Your task to perform on an android device: Go to internet settings Image 0: 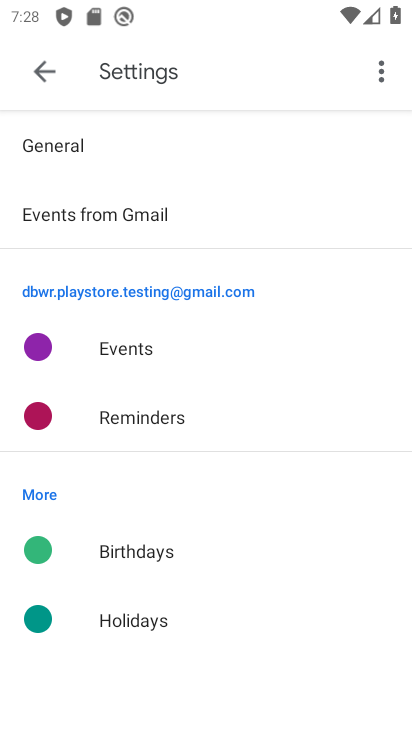
Step 0: press home button
Your task to perform on an android device: Go to internet settings Image 1: 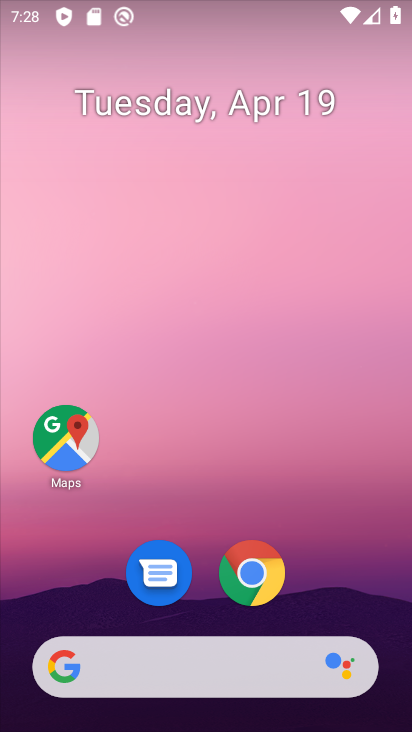
Step 1: drag from (317, 703) to (316, 216)
Your task to perform on an android device: Go to internet settings Image 2: 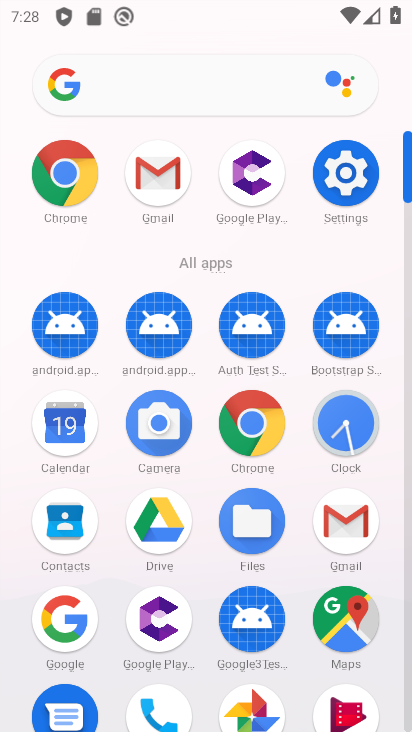
Step 2: click (350, 164)
Your task to perform on an android device: Go to internet settings Image 3: 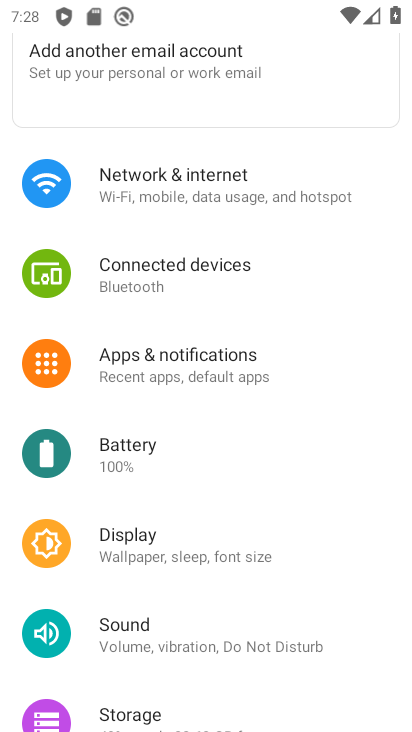
Step 3: drag from (178, 182) to (116, 346)
Your task to perform on an android device: Go to internet settings Image 4: 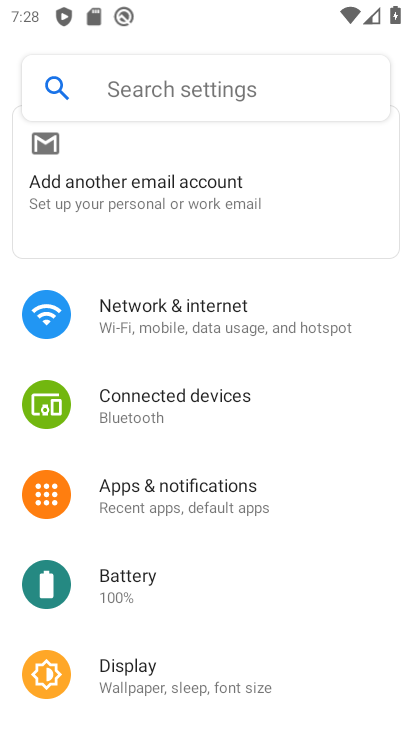
Step 4: click (184, 298)
Your task to perform on an android device: Go to internet settings Image 5: 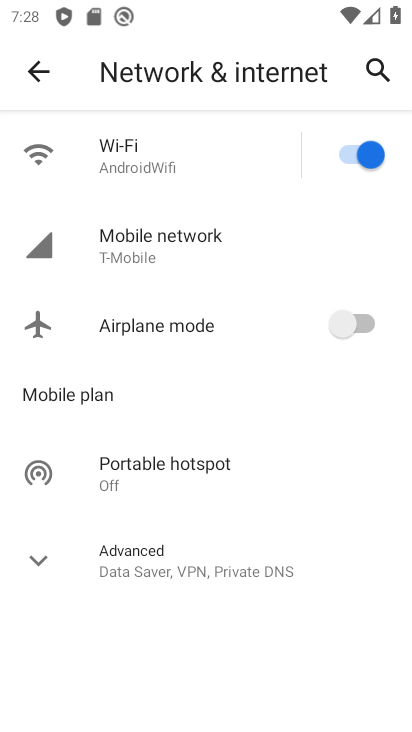
Step 5: click (36, 570)
Your task to perform on an android device: Go to internet settings Image 6: 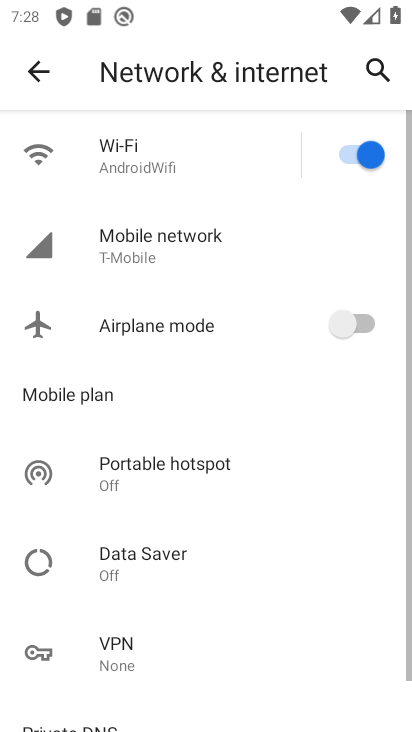
Step 6: task complete